Your task to perform on an android device: Open Reddit.com Image 0: 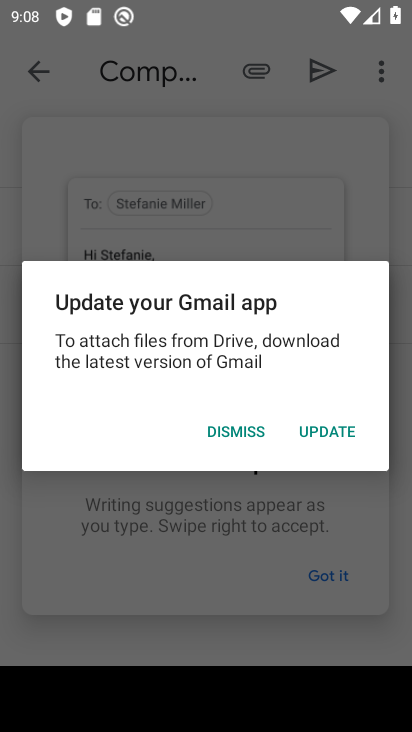
Step 0: press home button
Your task to perform on an android device: Open Reddit.com Image 1: 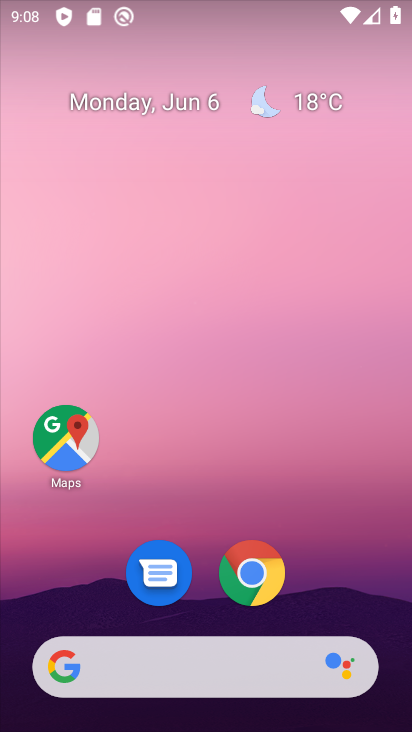
Step 1: click (268, 579)
Your task to perform on an android device: Open Reddit.com Image 2: 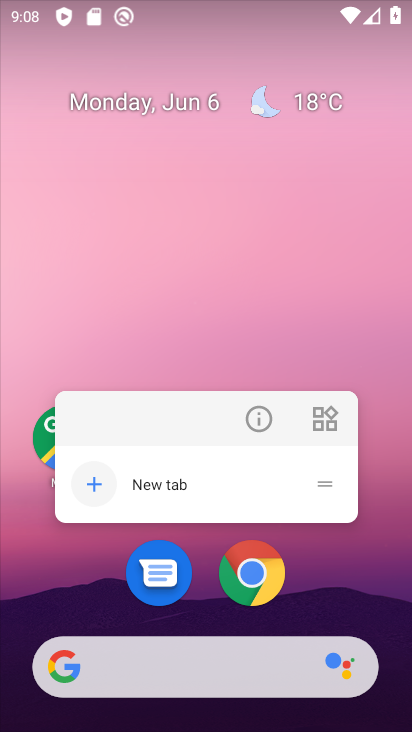
Step 2: click (268, 579)
Your task to perform on an android device: Open Reddit.com Image 3: 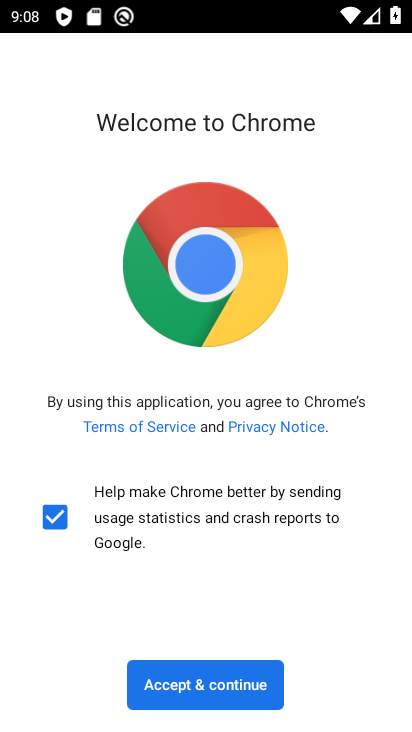
Step 3: click (202, 699)
Your task to perform on an android device: Open Reddit.com Image 4: 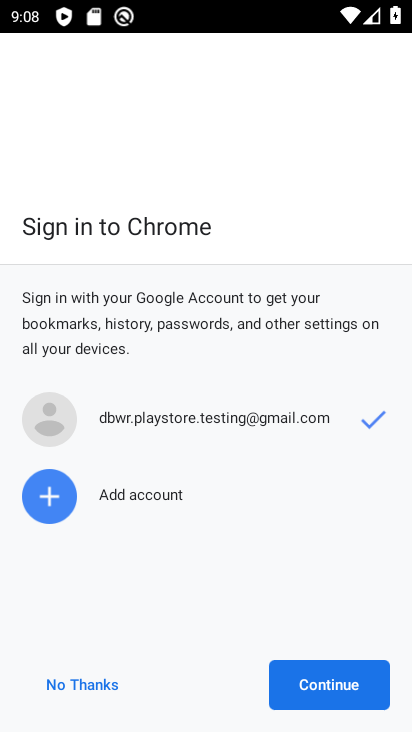
Step 4: click (276, 705)
Your task to perform on an android device: Open Reddit.com Image 5: 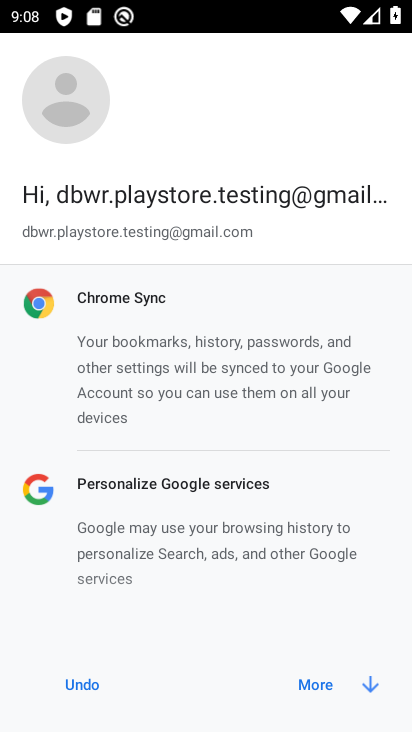
Step 5: click (304, 695)
Your task to perform on an android device: Open Reddit.com Image 6: 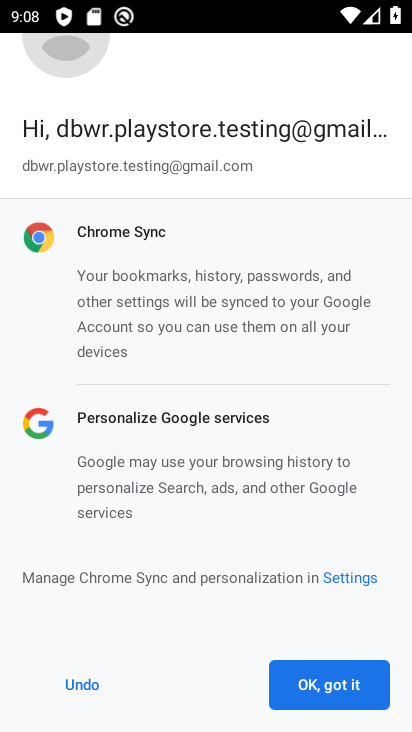
Step 6: click (304, 695)
Your task to perform on an android device: Open Reddit.com Image 7: 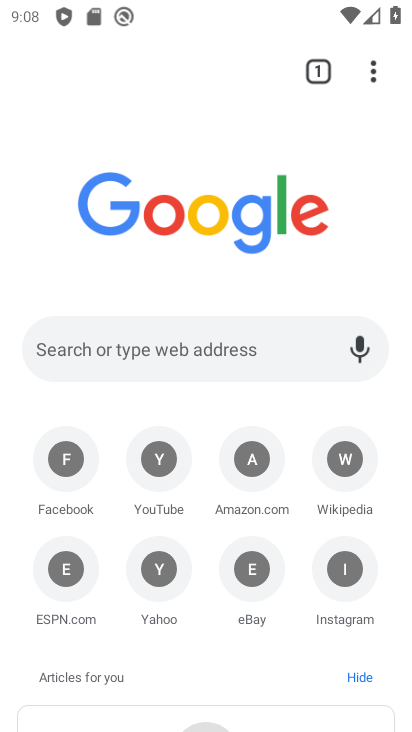
Step 7: click (184, 78)
Your task to perform on an android device: Open Reddit.com Image 8: 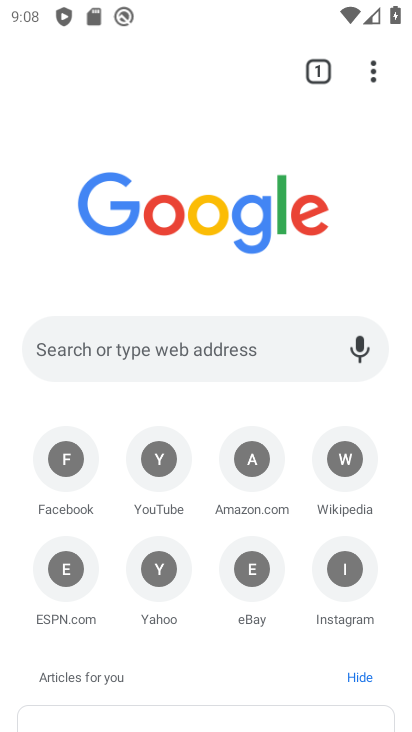
Step 8: click (197, 360)
Your task to perform on an android device: Open Reddit.com Image 9: 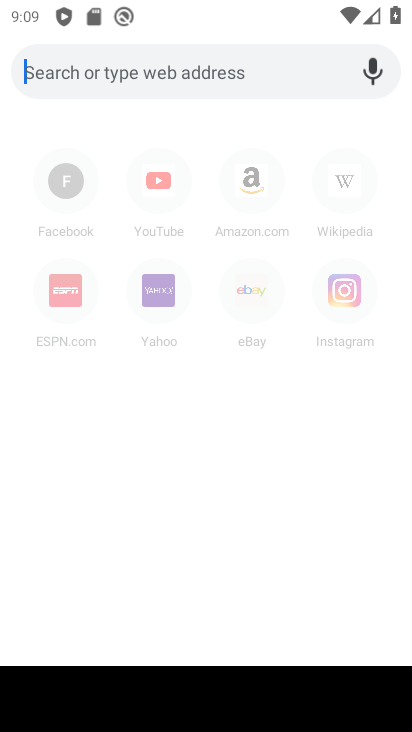
Step 9: type "reddit.com"
Your task to perform on an android device: Open Reddit.com Image 10: 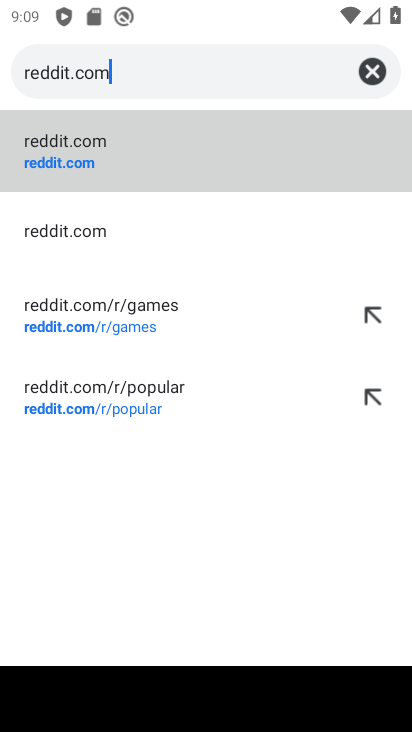
Step 10: click (76, 164)
Your task to perform on an android device: Open Reddit.com Image 11: 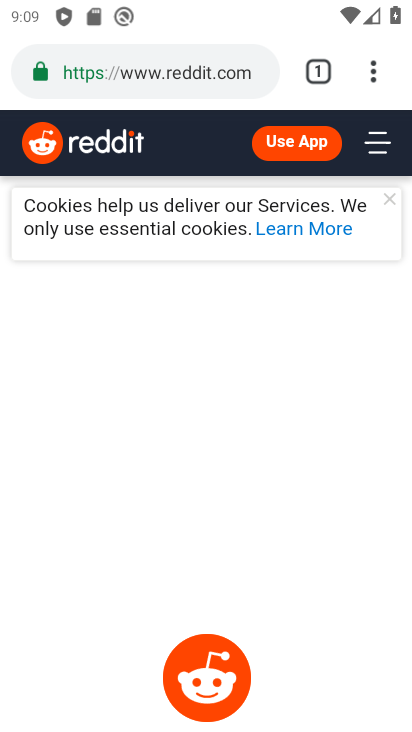
Step 11: task complete